Your task to perform on an android device: Search for seafood restaurants on Google Maps Image 0: 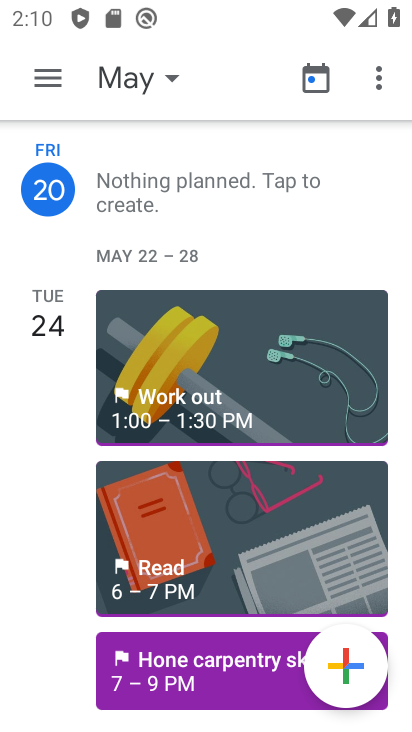
Step 0: press back button
Your task to perform on an android device: Search for seafood restaurants on Google Maps Image 1: 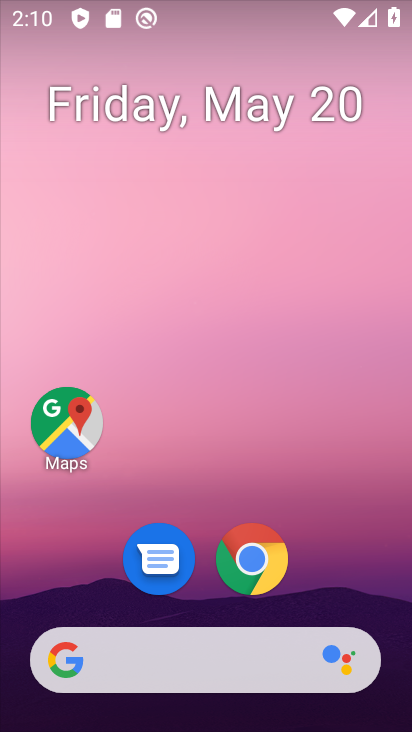
Step 1: click (64, 426)
Your task to perform on an android device: Search for seafood restaurants on Google Maps Image 2: 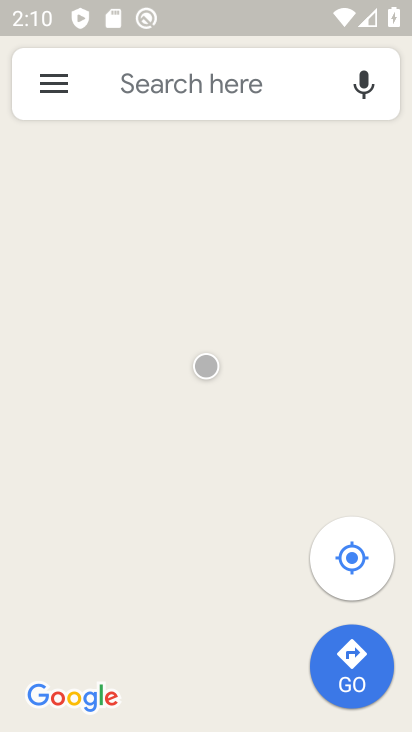
Step 2: click (157, 78)
Your task to perform on an android device: Search for seafood restaurants on Google Maps Image 3: 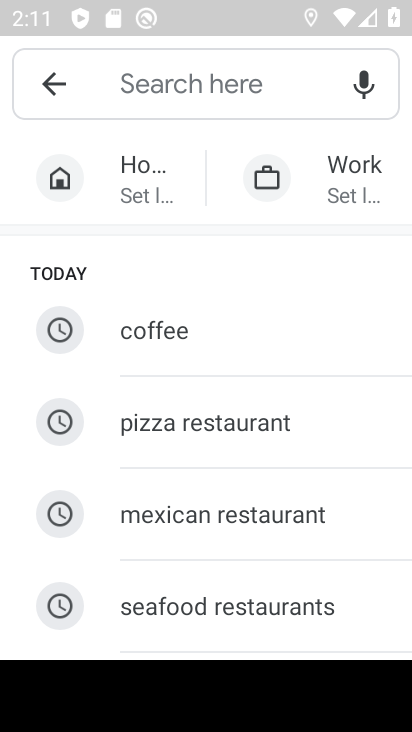
Step 3: type "seafood restaurants"
Your task to perform on an android device: Search for seafood restaurants on Google Maps Image 4: 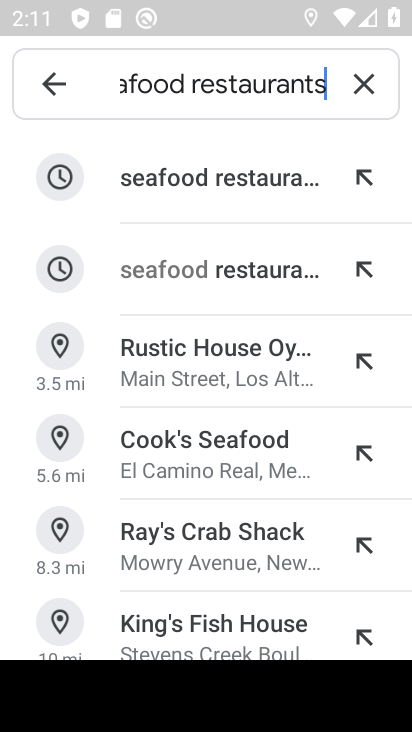
Step 4: click (198, 177)
Your task to perform on an android device: Search for seafood restaurants on Google Maps Image 5: 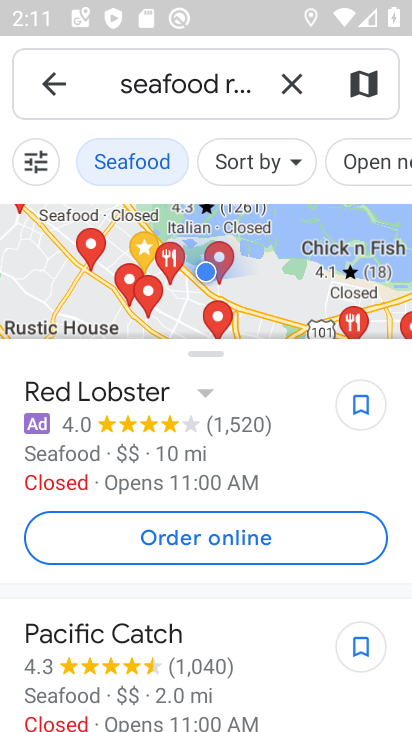
Step 5: task complete